Your task to perform on an android device: add a contact Image 0: 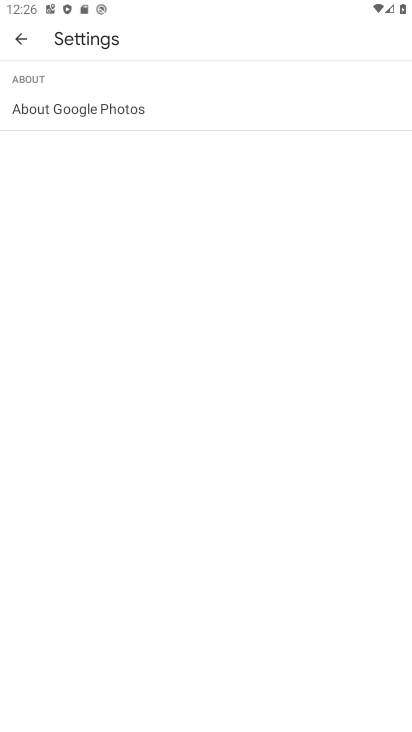
Step 0: press home button
Your task to perform on an android device: add a contact Image 1: 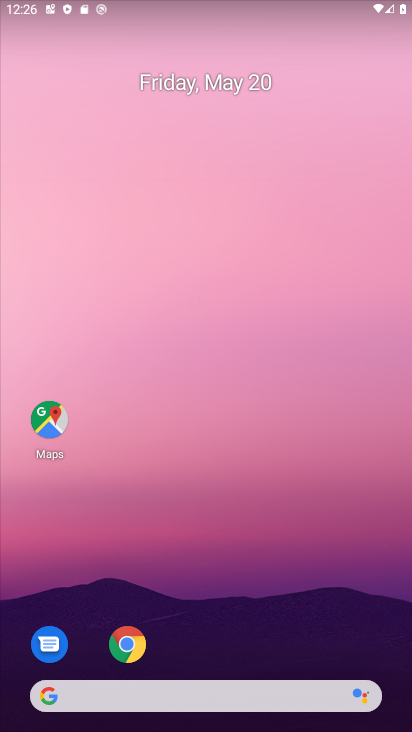
Step 1: drag from (251, 589) to (279, 90)
Your task to perform on an android device: add a contact Image 2: 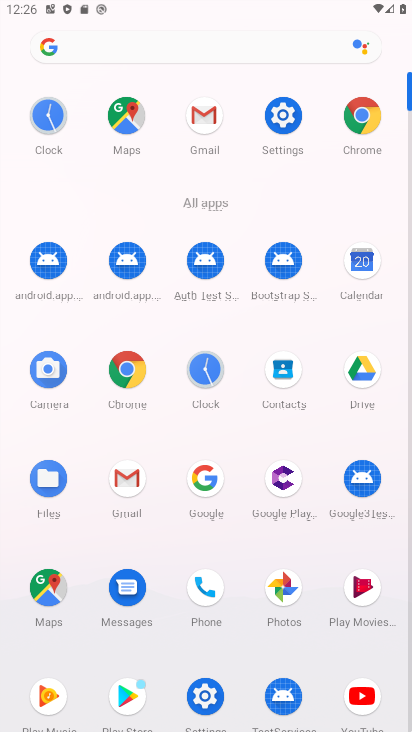
Step 2: click (281, 377)
Your task to perform on an android device: add a contact Image 3: 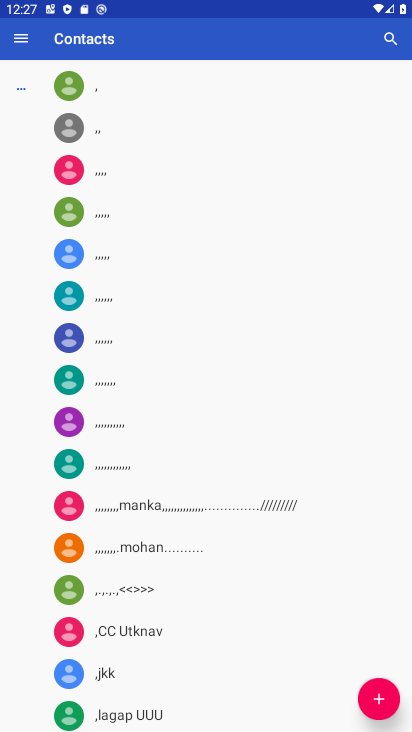
Step 3: click (385, 706)
Your task to perform on an android device: add a contact Image 4: 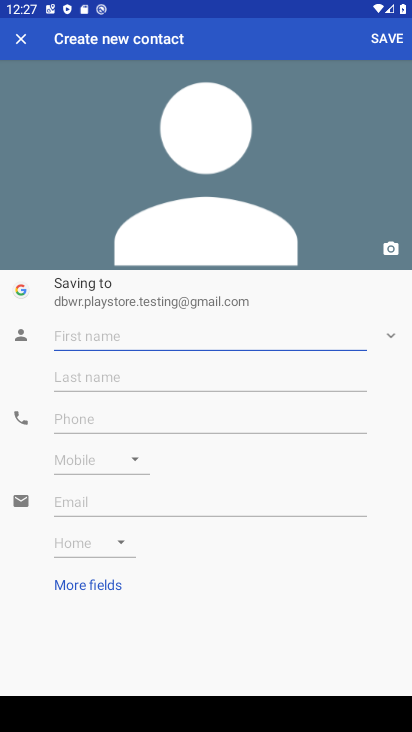
Step 4: click (61, 343)
Your task to perform on an android device: add a contact Image 5: 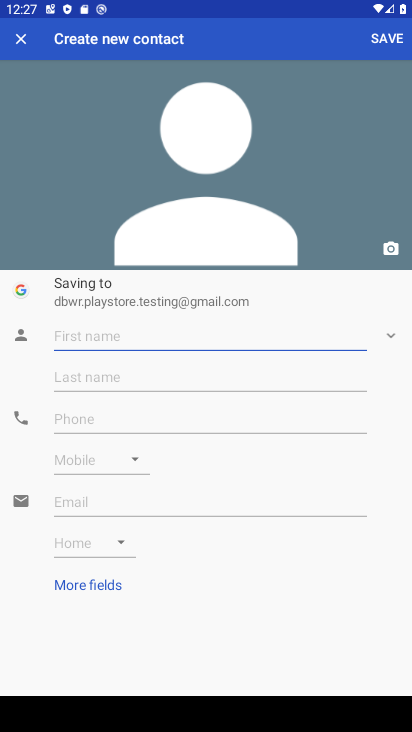
Step 5: type "bunny"
Your task to perform on an android device: add a contact Image 6: 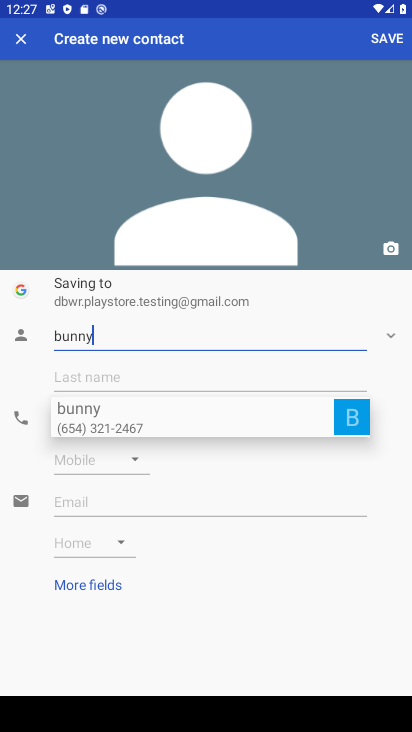
Step 6: click (396, 407)
Your task to perform on an android device: add a contact Image 7: 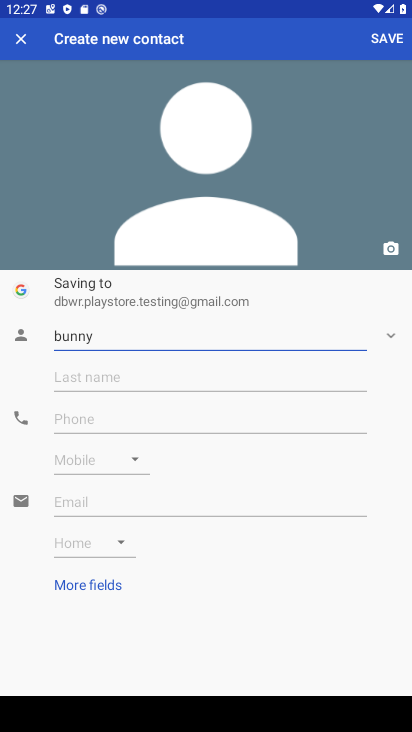
Step 7: click (276, 410)
Your task to perform on an android device: add a contact Image 8: 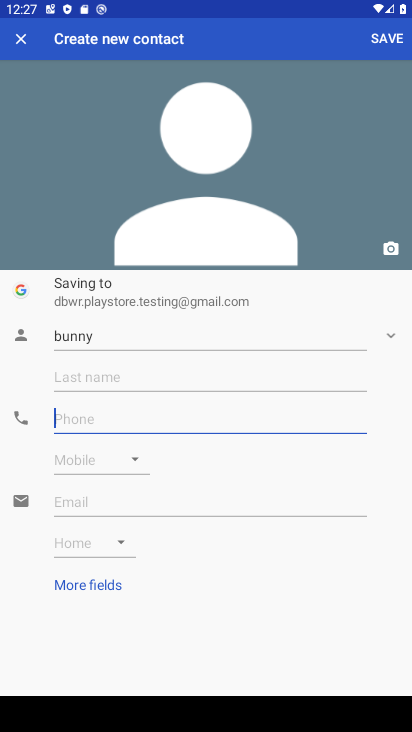
Step 8: type "988766655"
Your task to perform on an android device: add a contact Image 9: 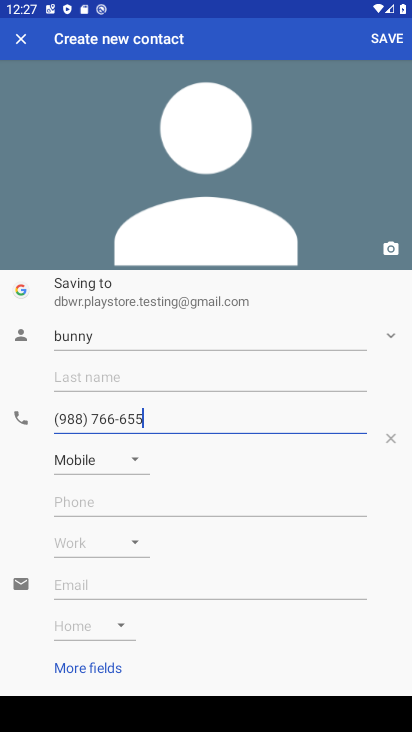
Step 9: click (375, 37)
Your task to perform on an android device: add a contact Image 10: 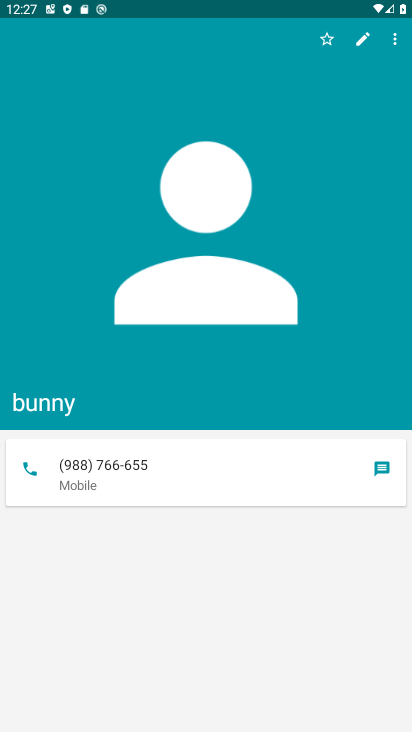
Step 10: task complete